Your task to perform on an android device: Go to Google maps Image 0: 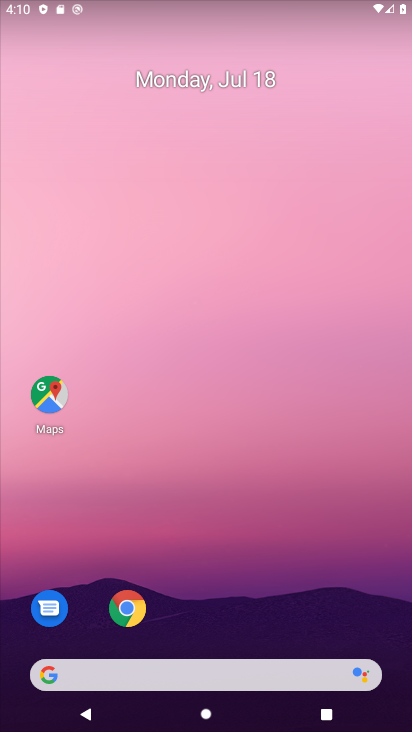
Step 0: drag from (273, 503) to (225, 65)
Your task to perform on an android device: Go to Google maps Image 1: 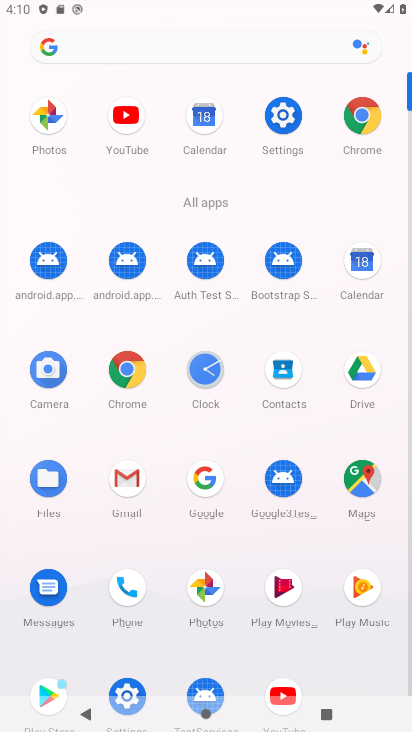
Step 1: click (368, 471)
Your task to perform on an android device: Go to Google maps Image 2: 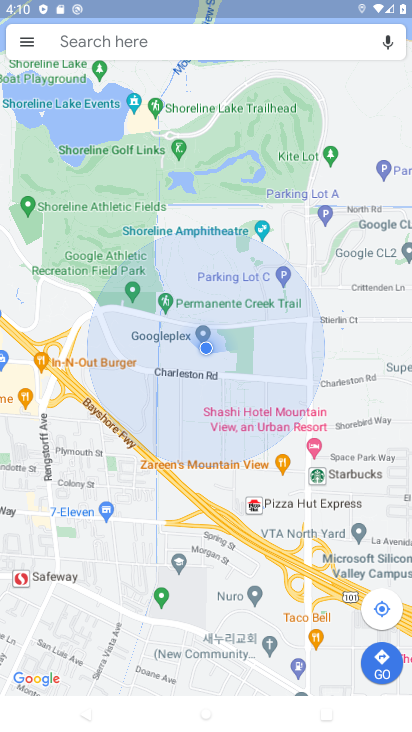
Step 2: task complete